Your task to perform on an android device: toggle priority inbox in the gmail app Image 0: 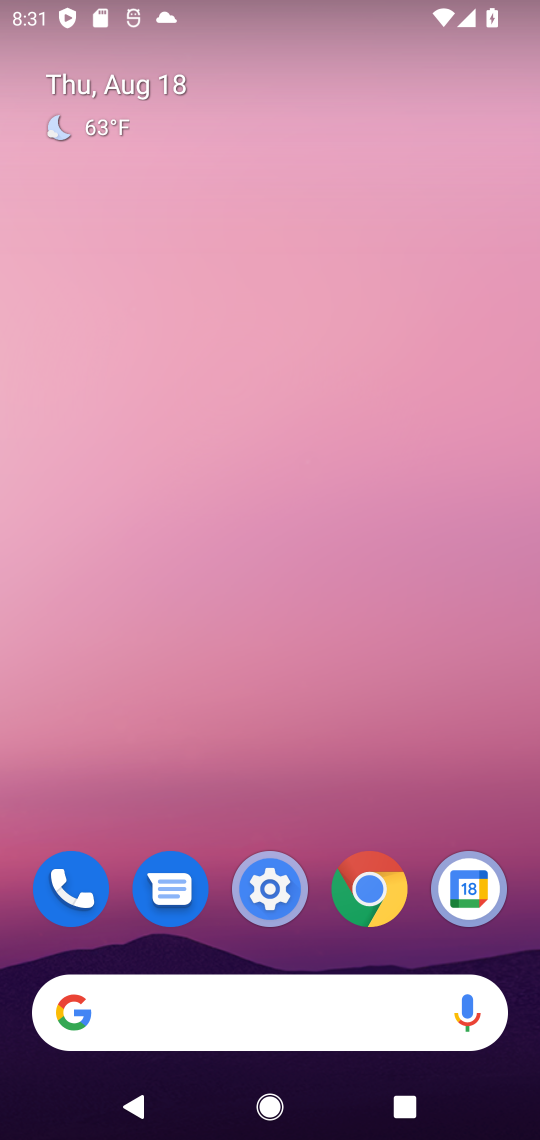
Step 0: press home button
Your task to perform on an android device: toggle priority inbox in the gmail app Image 1: 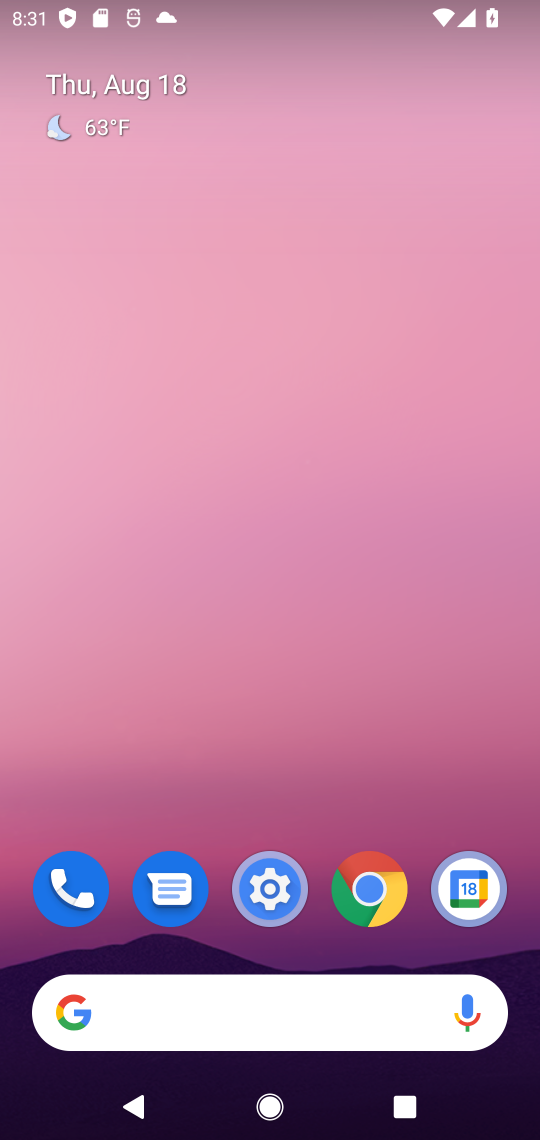
Step 1: drag from (319, 810) to (281, 114)
Your task to perform on an android device: toggle priority inbox in the gmail app Image 2: 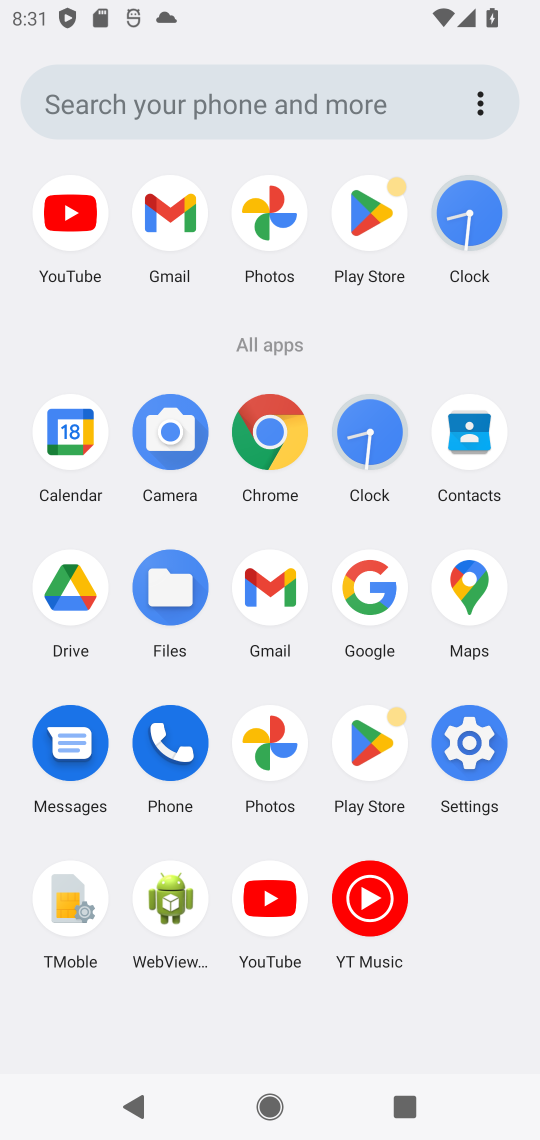
Step 2: click (183, 220)
Your task to perform on an android device: toggle priority inbox in the gmail app Image 3: 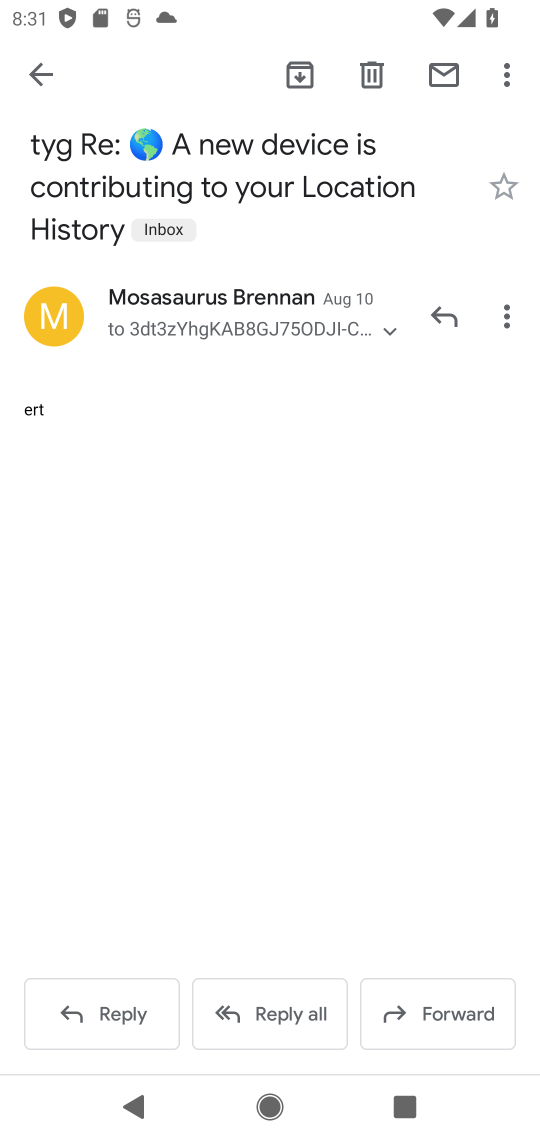
Step 3: click (510, 80)
Your task to perform on an android device: toggle priority inbox in the gmail app Image 4: 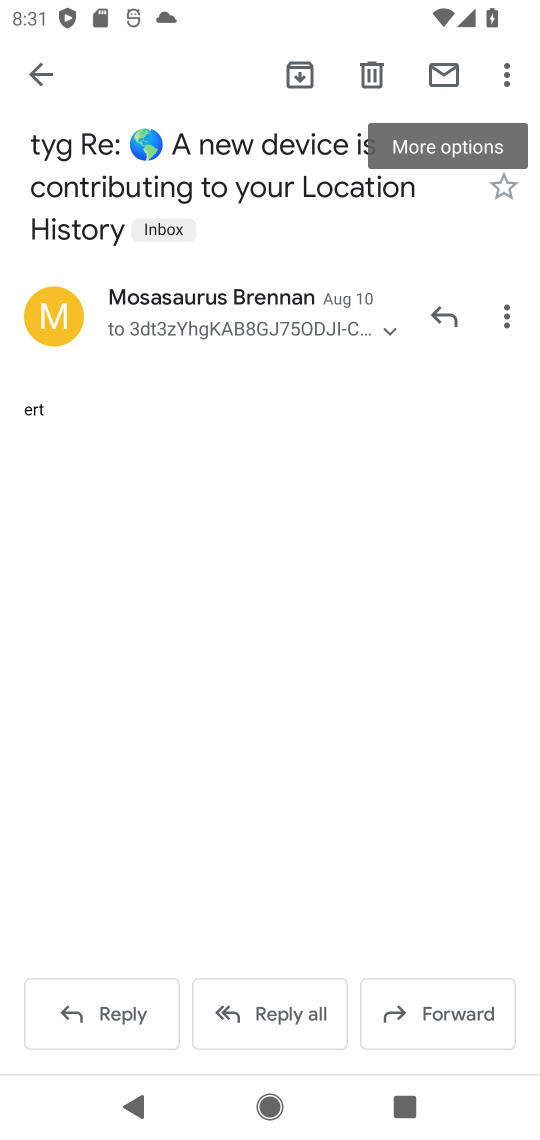
Step 4: click (44, 68)
Your task to perform on an android device: toggle priority inbox in the gmail app Image 5: 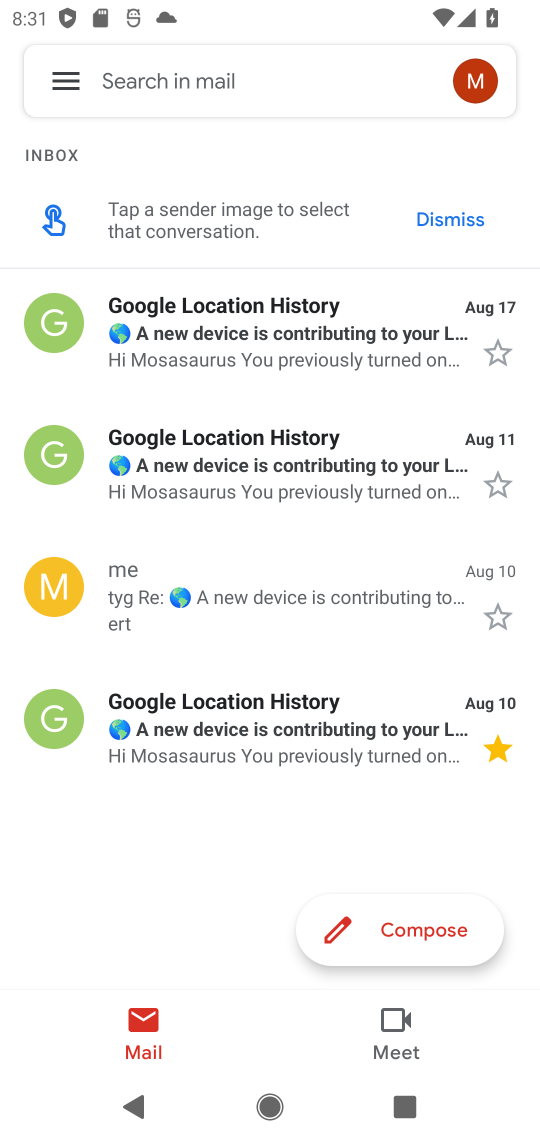
Step 5: click (61, 78)
Your task to perform on an android device: toggle priority inbox in the gmail app Image 6: 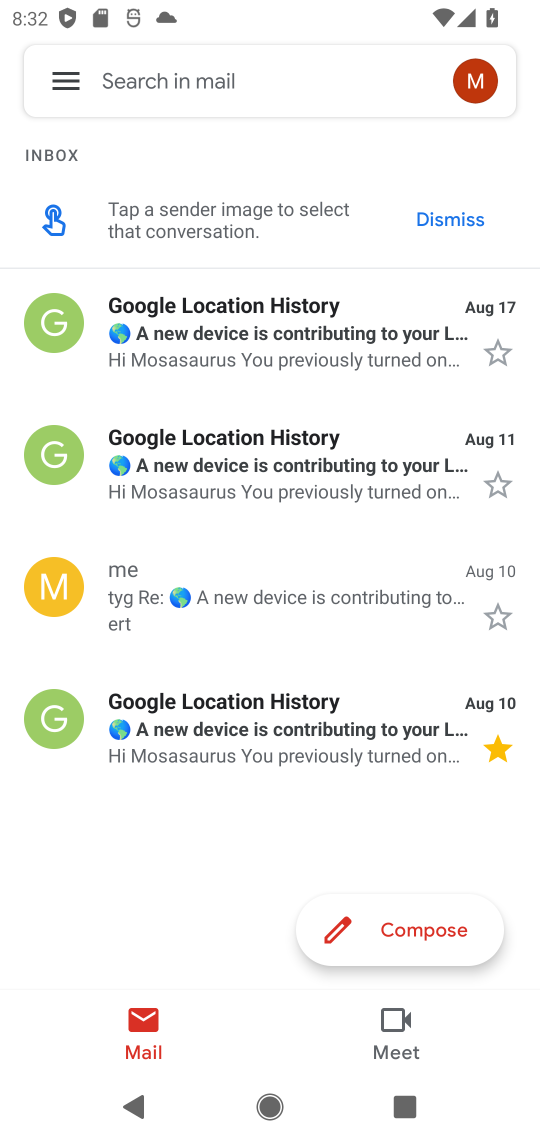
Step 6: click (52, 79)
Your task to perform on an android device: toggle priority inbox in the gmail app Image 7: 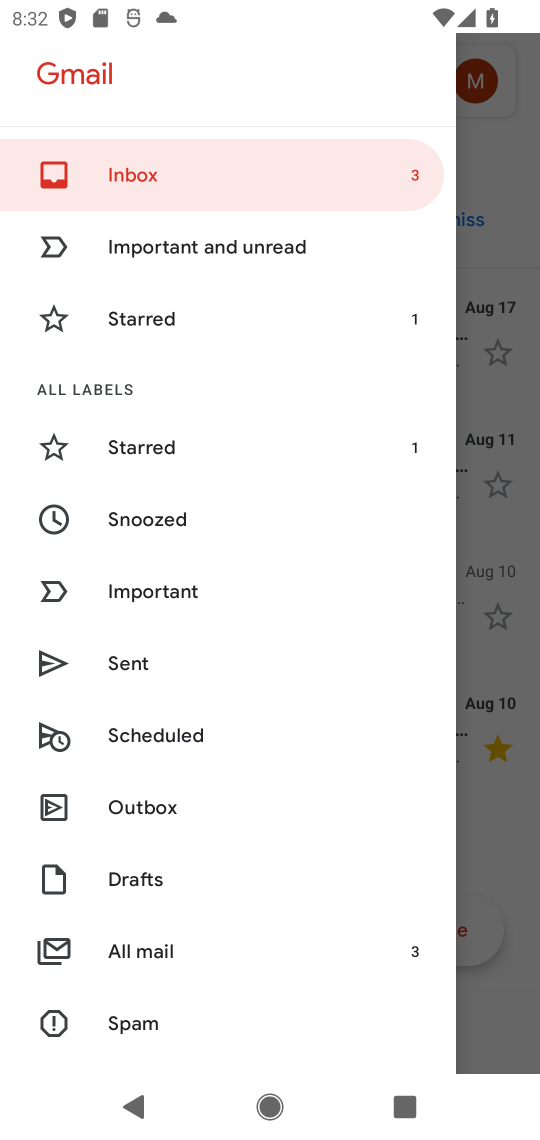
Step 7: drag from (158, 983) to (150, 304)
Your task to perform on an android device: toggle priority inbox in the gmail app Image 8: 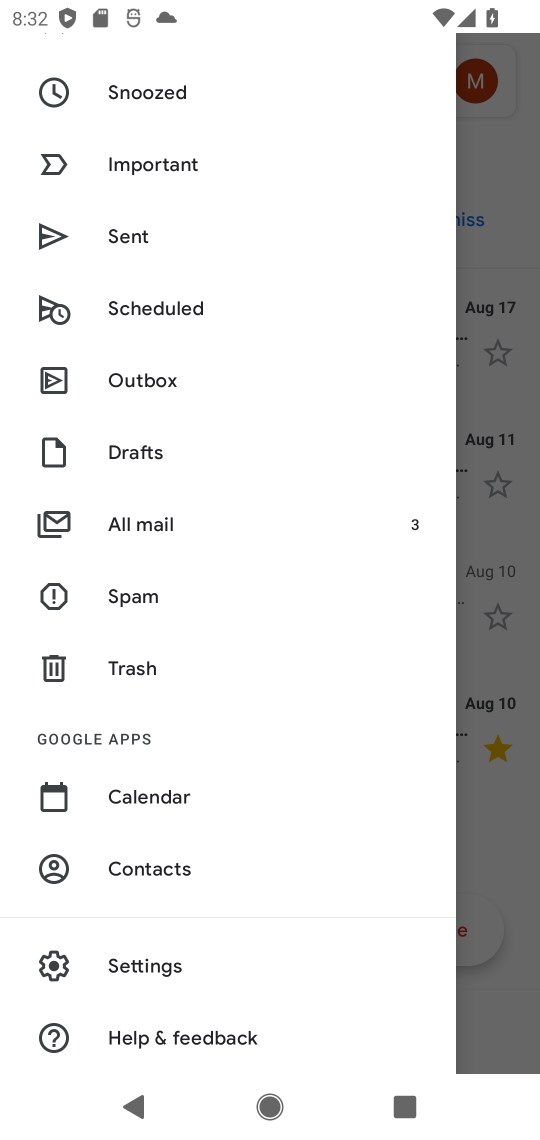
Step 8: click (142, 960)
Your task to perform on an android device: toggle priority inbox in the gmail app Image 9: 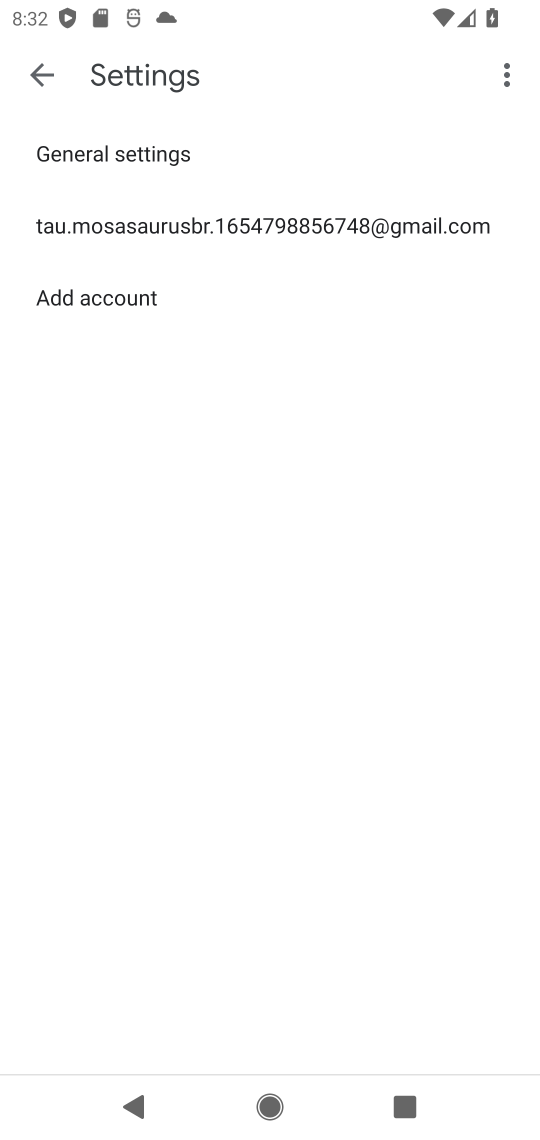
Step 9: click (141, 216)
Your task to perform on an android device: toggle priority inbox in the gmail app Image 10: 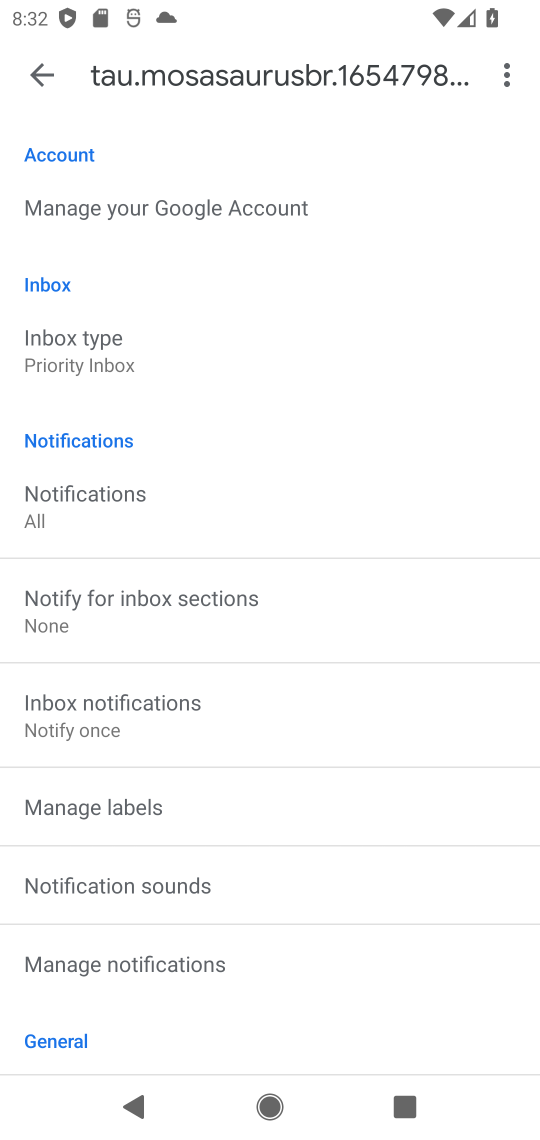
Step 10: click (82, 349)
Your task to perform on an android device: toggle priority inbox in the gmail app Image 11: 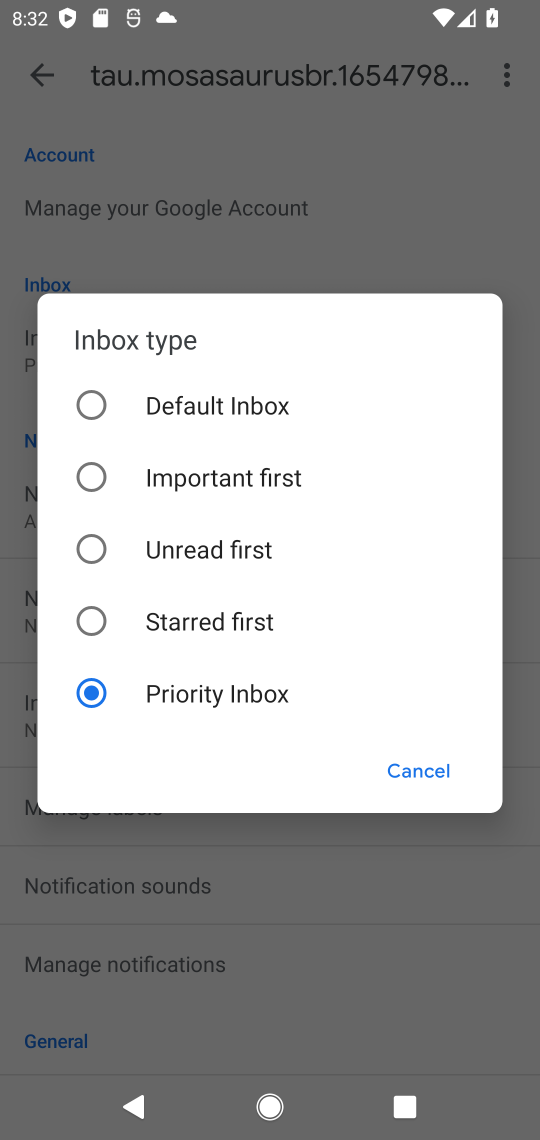
Step 11: click (92, 406)
Your task to perform on an android device: toggle priority inbox in the gmail app Image 12: 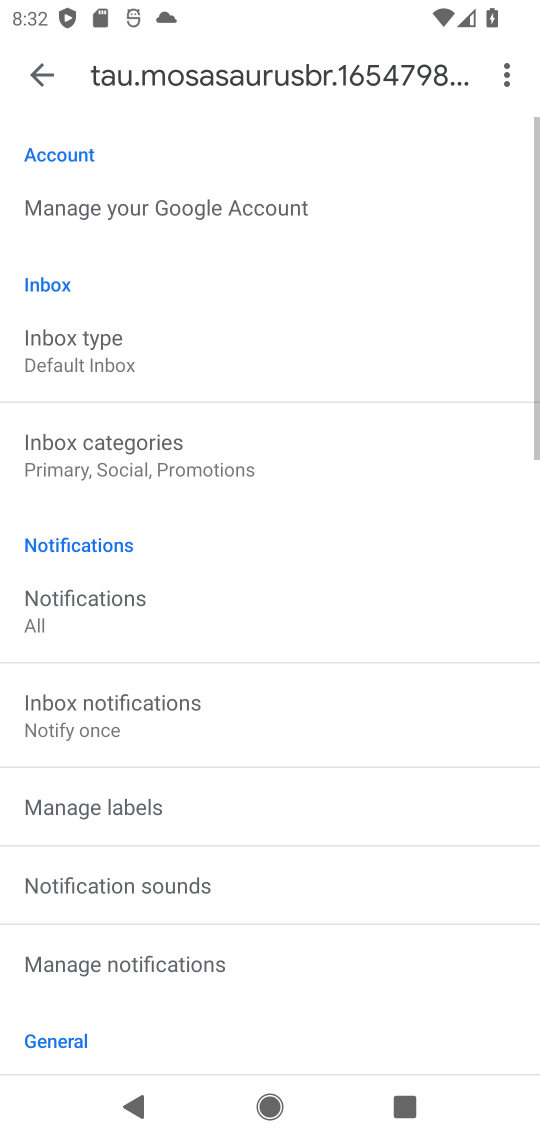
Step 12: task complete